Your task to perform on an android device: Search for sushi restaurants on Maps Image 0: 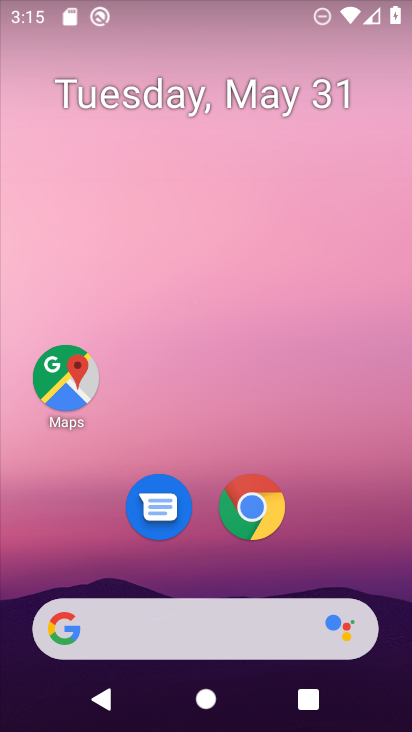
Step 0: click (44, 367)
Your task to perform on an android device: Search for sushi restaurants on Maps Image 1: 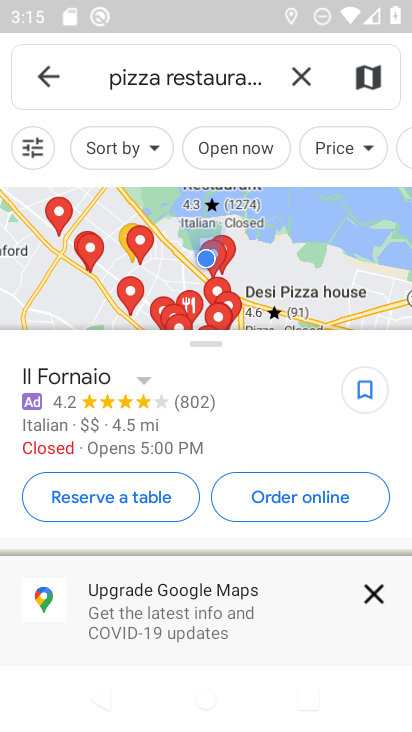
Step 1: click (296, 77)
Your task to perform on an android device: Search for sushi restaurants on Maps Image 2: 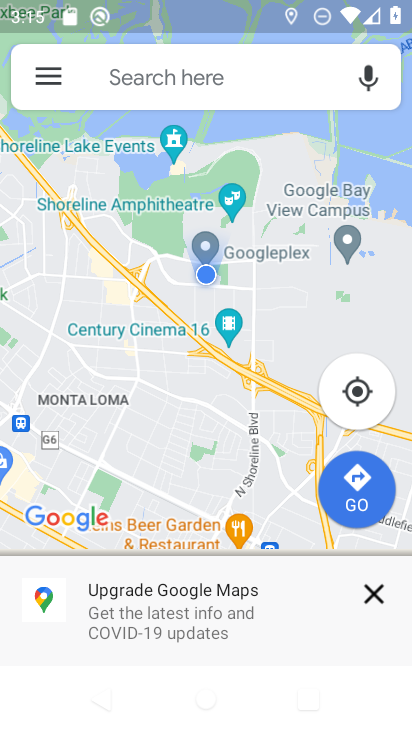
Step 2: click (246, 75)
Your task to perform on an android device: Search for sushi restaurants on Maps Image 3: 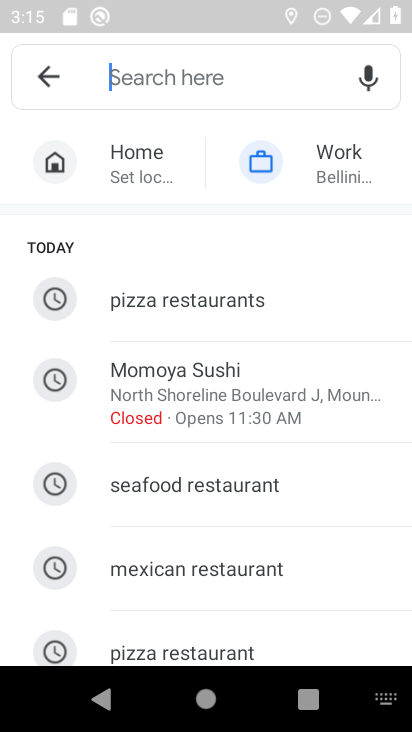
Step 3: type "sushi"
Your task to perform on an android device: Search for sushi restaurants on Maps Image 4: 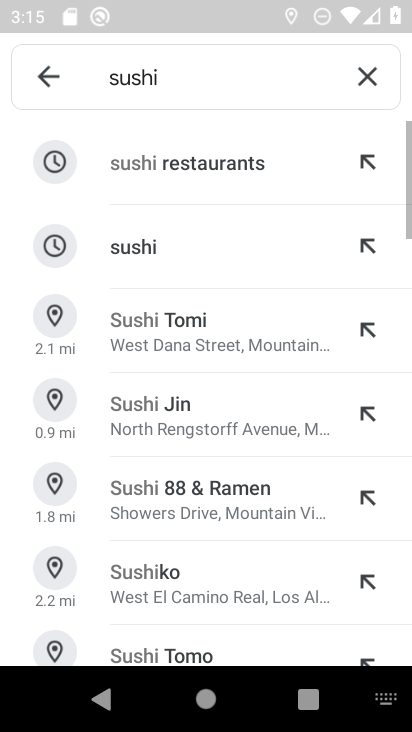
Step 4: click (246, 166)
Your task to perform on an android device: Search for sushi restaurants on Maps Image 5: 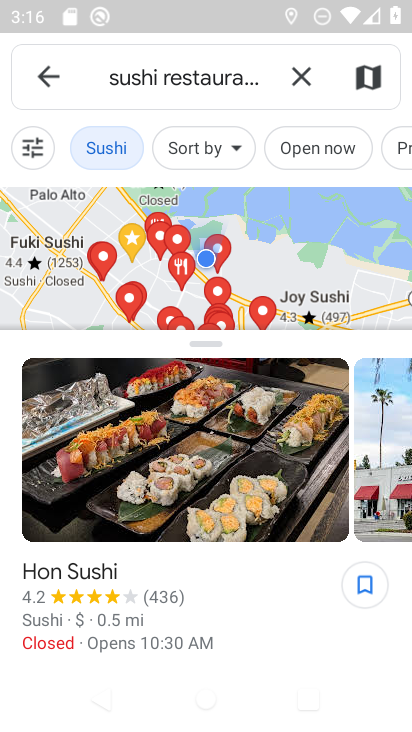
Step 5: task complete